Your task to perform on an android device: turn off translation in the chrome app Image 0: 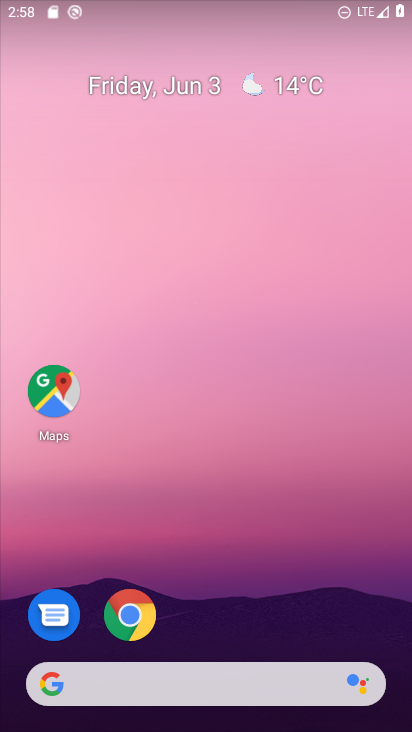
Step 0: click (232, 126)
Your task to perform on an android device: turn off translation in the chrome app Image 1: 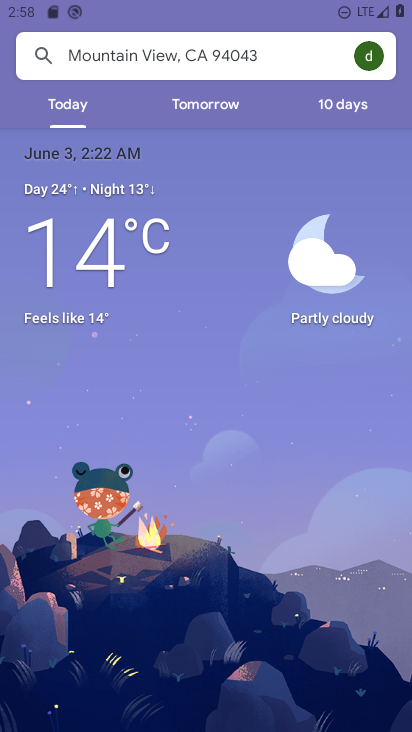
Step 1: press home button
Your task to perform on an android device: turn off translation in the chrome app Image 2: 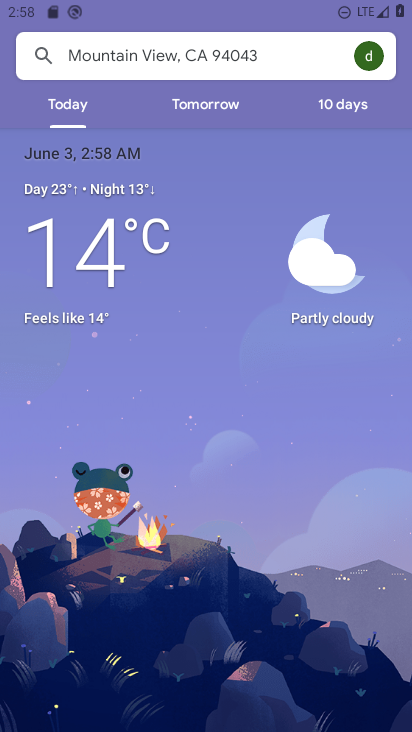
Step 2: drag from (213, 607) to (265, 23)
Your task to perform on an android device: turn off translation in the chrome app Image 3: 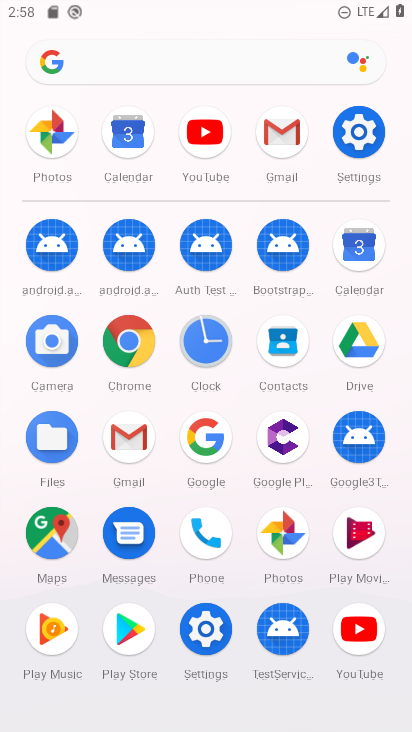
Step 3: click (124, 342)
Your task to perform on an android device: turn off translation in the chrome app Image 4: 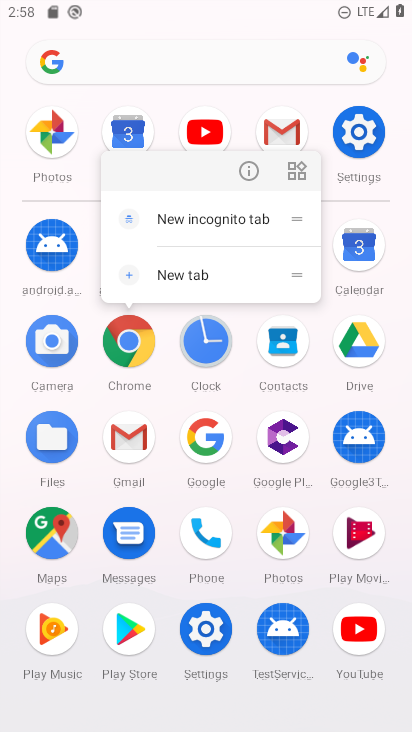
Step 4: click (242, 162)
Your task to perform on an android device: turn off translation in the chrome app Image 5: 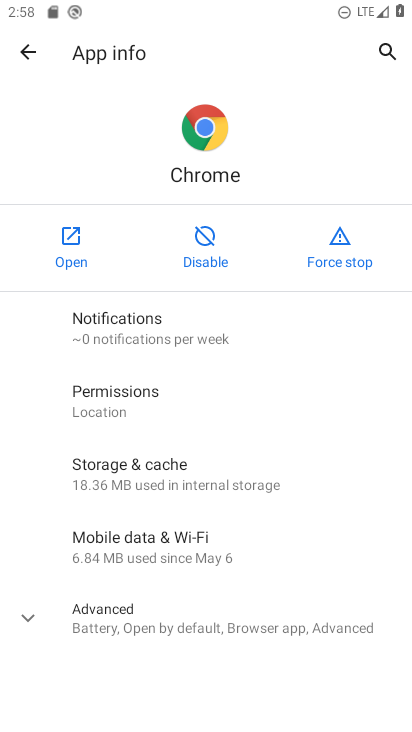
Step 5: click (65, 232)
Your task to perform on an android device: turn off translation in the chrome app Image 6: 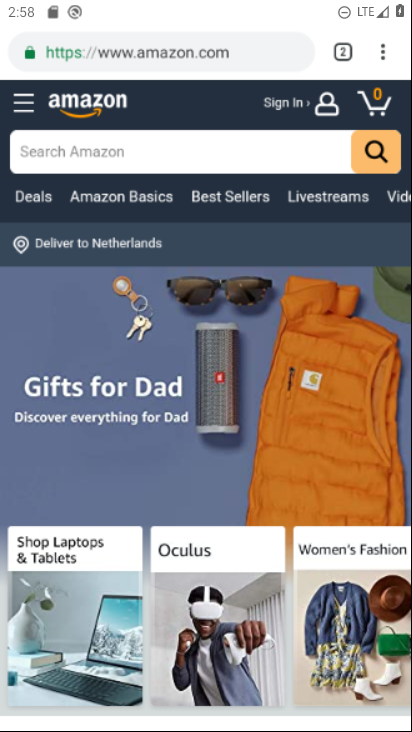
Step 6: drag from (247, 460) to (286, 104)
Your task to perform on an android device: turn off translation in the chrome app Image 7: 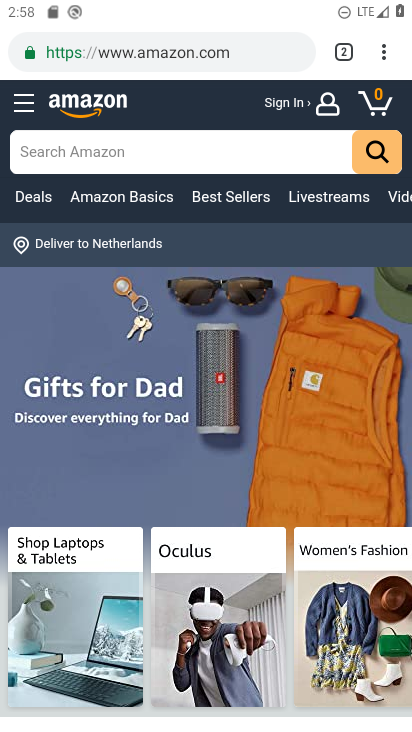
Step 7: click (385, 52)
Your task to perform on an android device: turn off translation in the chrome app Image 8: 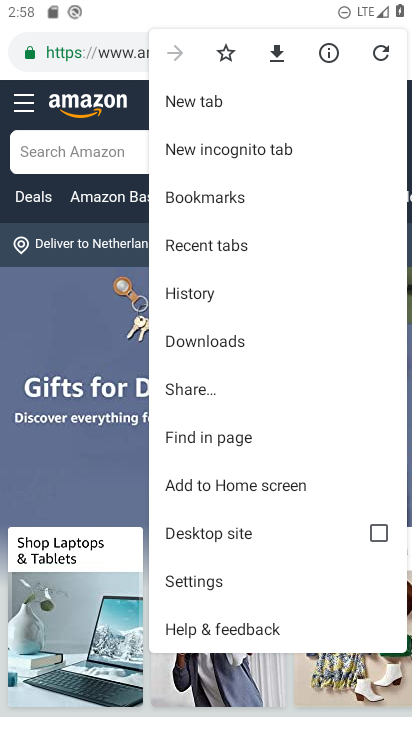
Step 8: drag from (203, 397) to (218, 1)
Your task to perform on an android device: turn off translation in the chrome app Image 9: 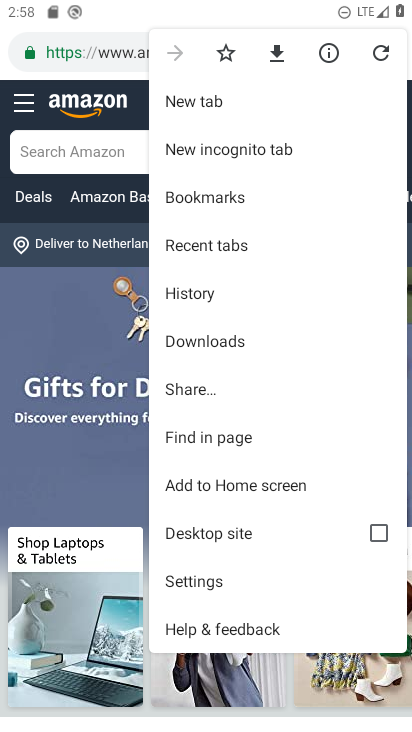
Step 9: click (220, 580)
Your task to perform on an android device: turn off translation in the chrome app Image 10: 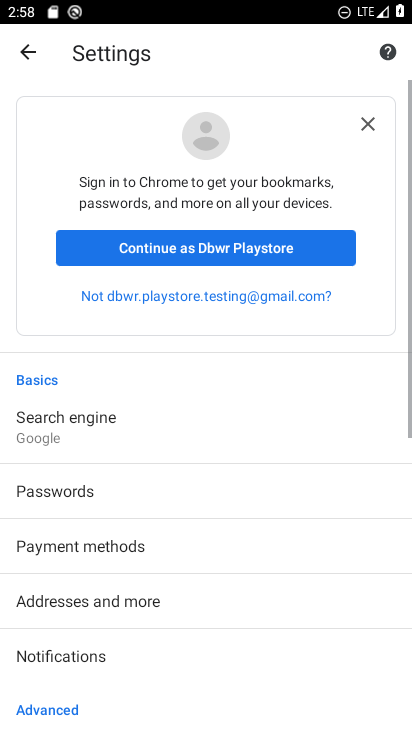
Step 10: drag from (159, 559) to (204, 96)
Your task to perform on an android device: turn off translation in the chrome app Image 11: 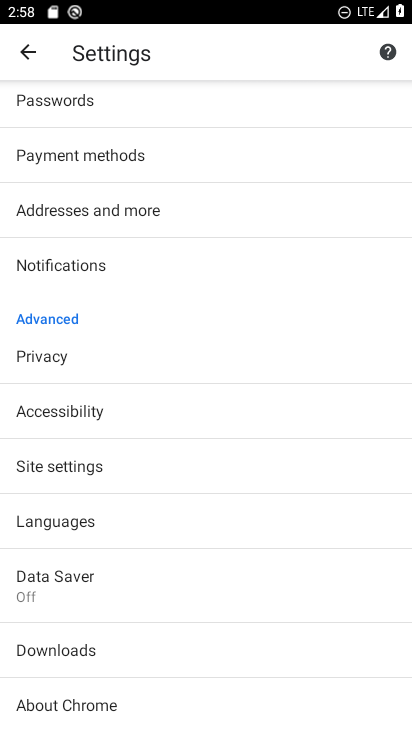
Step 11: click (99, 523)
Your task to perform on an android device: turn off translation in the chrome app Image 12: 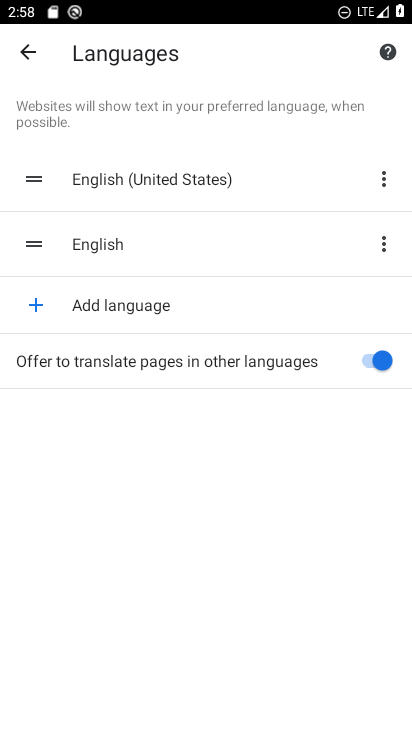
Step 12: click (384, 362)
Your task to perform on an android device: turn off translation in the chrome app Image 13: 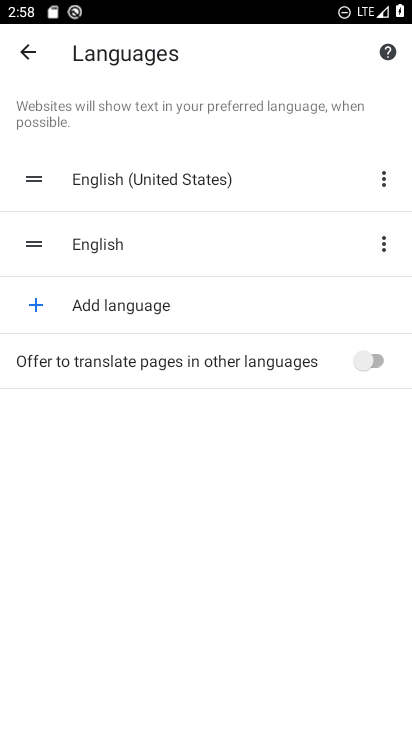
Step 13: task complete